Your task to perform on an android device: Go to Google Image 0: 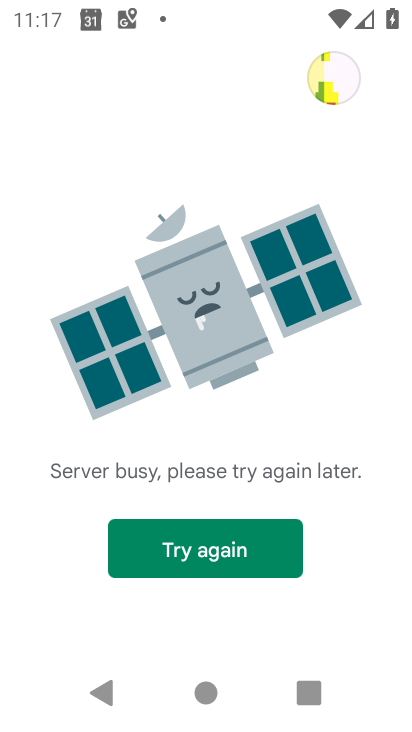
Step 0: press home button
Your task to perform on an android device: Go to Google Image 1: 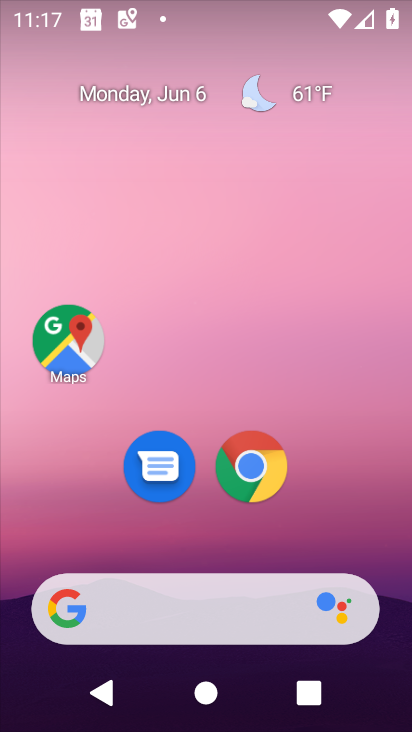
Step 1: drag from (321, 397) to (306, 71)
Your task to perform on an android device: Go to Google Image 2: 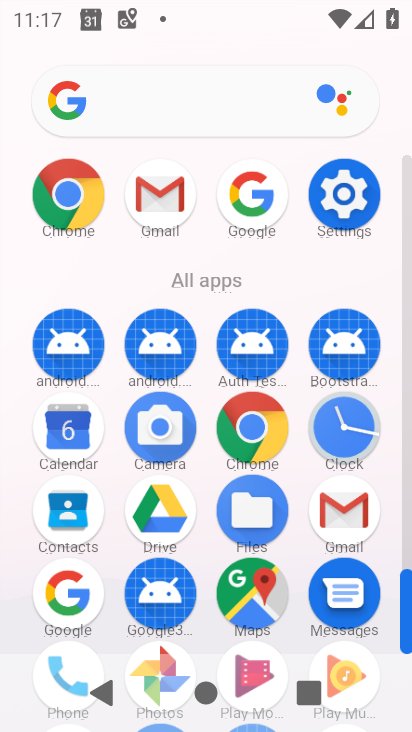
Step 2: click (281, 187)
Your task to perform on an android device: Go to Google Image 3: 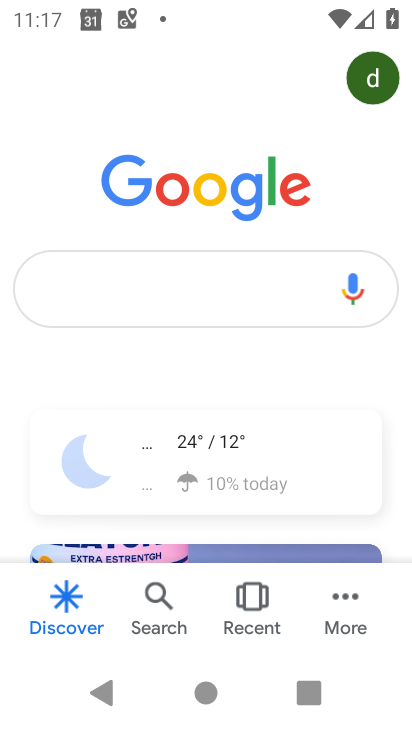
Step 3: task complete